Your task to perform on an android device: Open Youtube and go to "Your channel" Image 0: 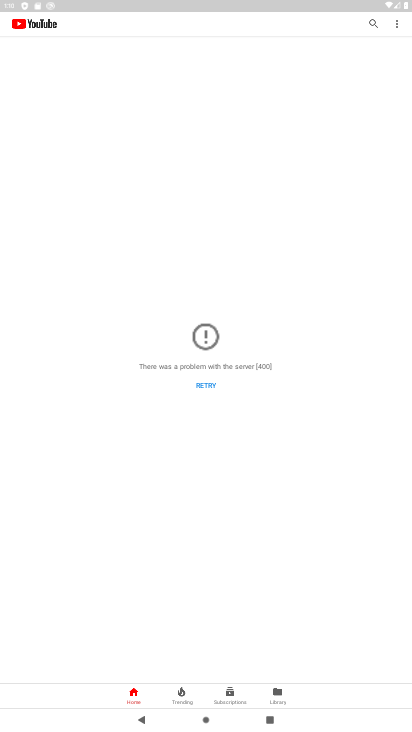
Step 0: press home button
Your task to perform on an android device: Open Youtube and go to "Your channel" Image 1: 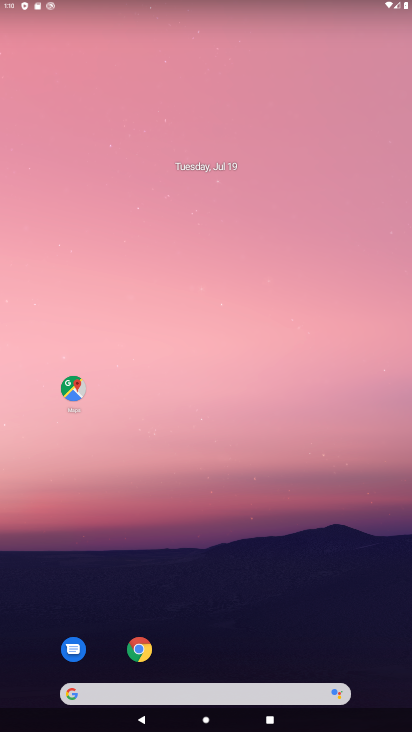
Step 1: drag from (272, 459) to (286, 190)
Your task to perform on an android device: Open Youtube and go to "Your channel" Image 2: 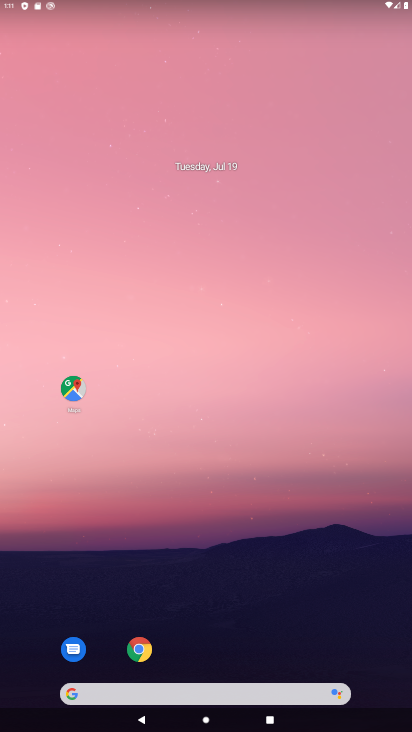
Step 2: drag from (219, 477) to (250, 194)
Your task to perform on an android device: Open Youtube and go to "Your channel" Image 3: 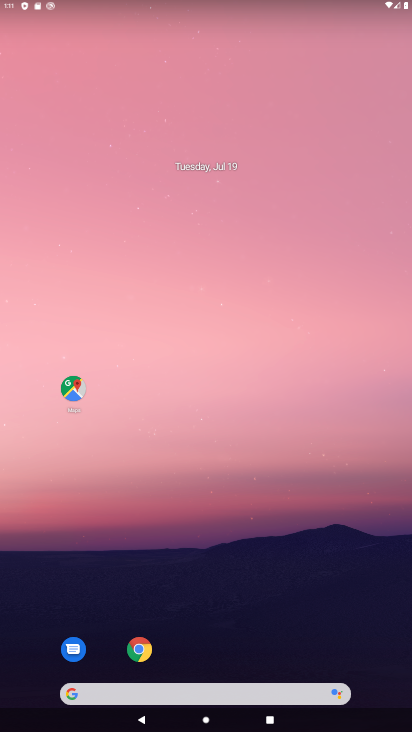
Step 3: drag from (231, 589) to (256, 156)
Your task to perform on an android device: Open Youtube and go to "Your channel" Image 4: 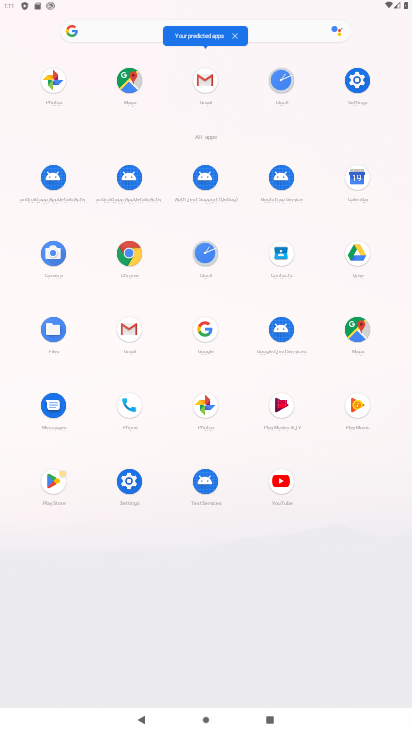
Step 4: click (288, 485)
Your task to perform on an android device: Open Youtube and go to "Your channel" Image 5: 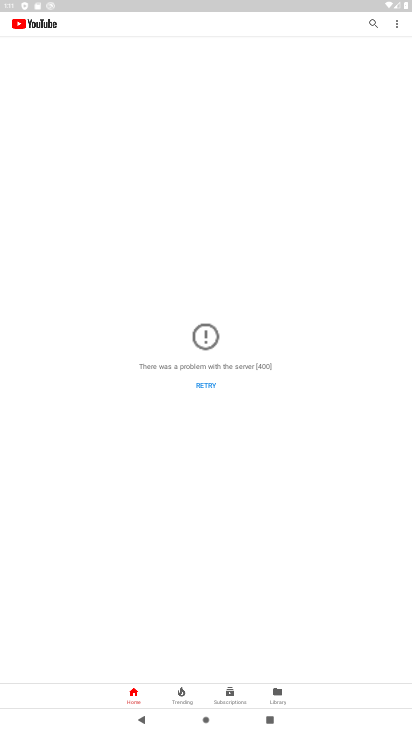
Step 5: task complete